Your task to perform on an android device: turn on javascript in the chrome app Image 0: 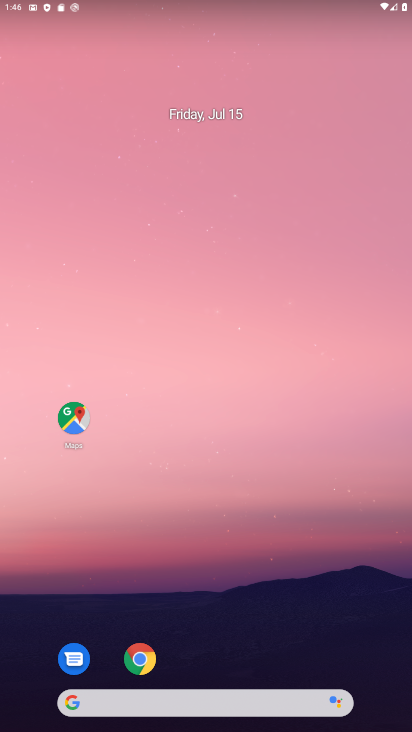
Step 0: drag from (303, 720) to (163, 119)
Your task to perform on an android device: turn on javascript in the chrome app Image 1: 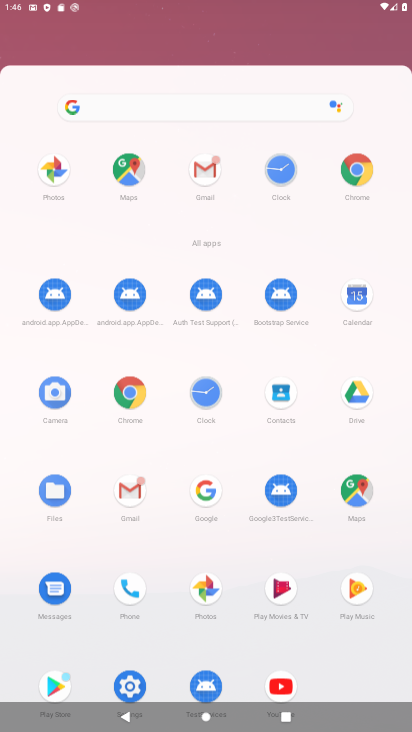
Step 1: drag from (231, 599) to (166, 147)
Your task to perform on an android device: turn on javascript in the chrome app Image 2: 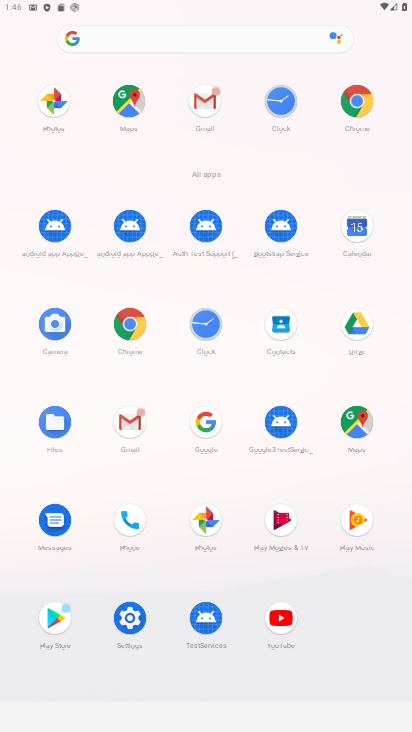
Step 2: click (343, 101)
Your task to perform on an android device: turn on javascript in the chrome app Image 3: 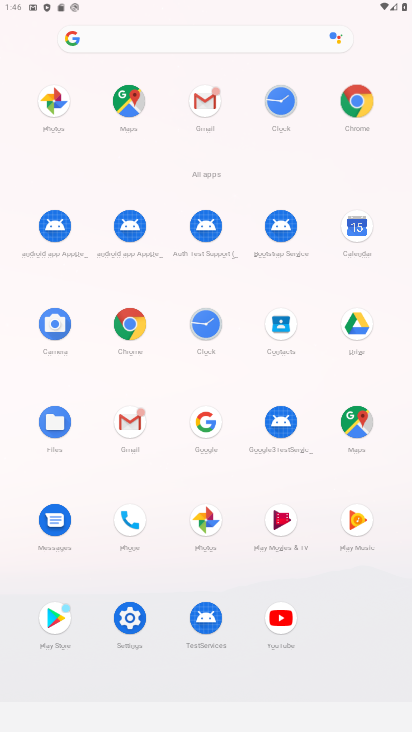
Step 3: click (349, 104)
Your task to perform on an android device: turn on javascript in the chrome app Image 4: 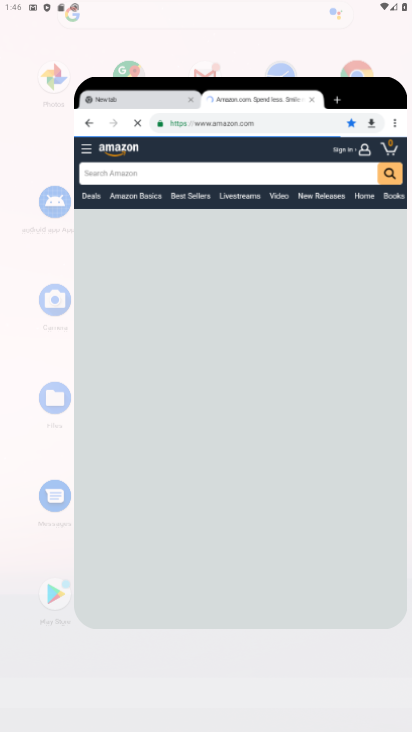
Step 4: click (349, 104)
Your task to perform on an android device: turn on javascript in the chrome app Image 5: 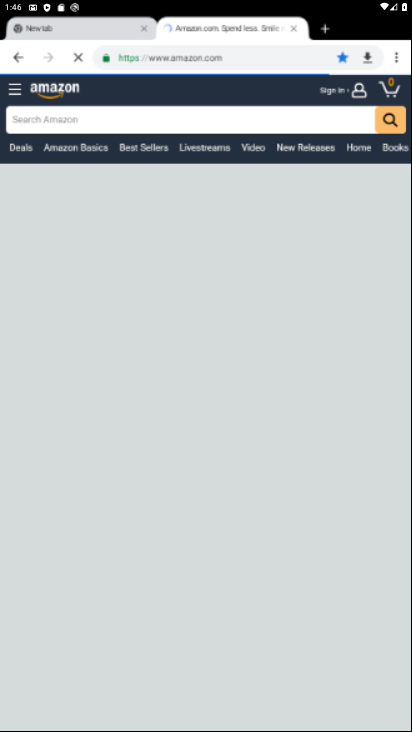
Step 5: click (350, 105)
Your task to perform on an android device: turn on javascript in the chrome app Image 6: 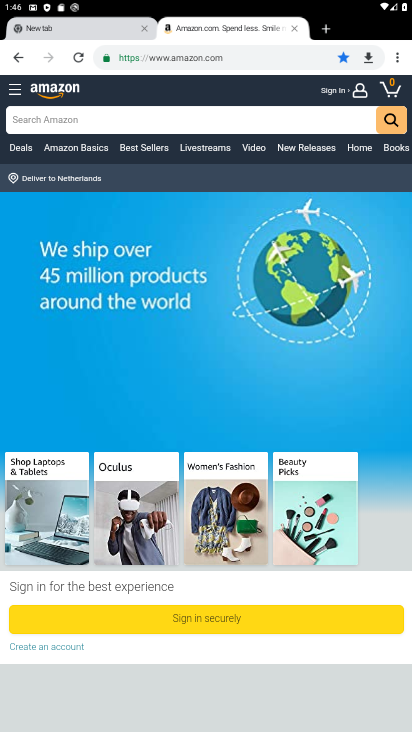
Step 6: drag from (394, 64) to (249, 426)
Your task to perform on an android device: turn on javascript in the chrome app Image 7: 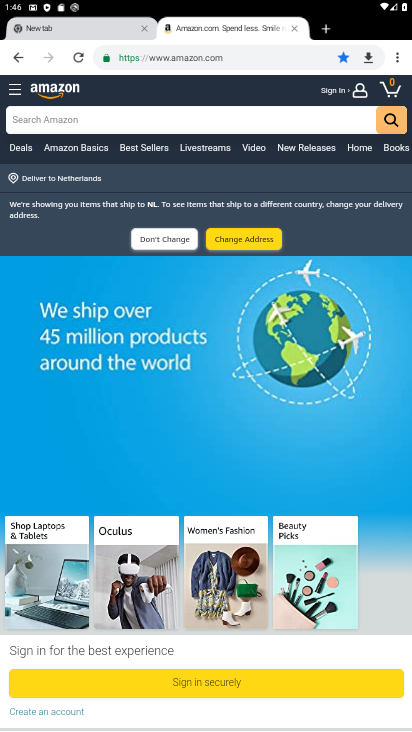
Step 7: drag from (377, 141) to (364, 518)
Your task to perform on an android device: turn on javascript in the chrome app Image 8: 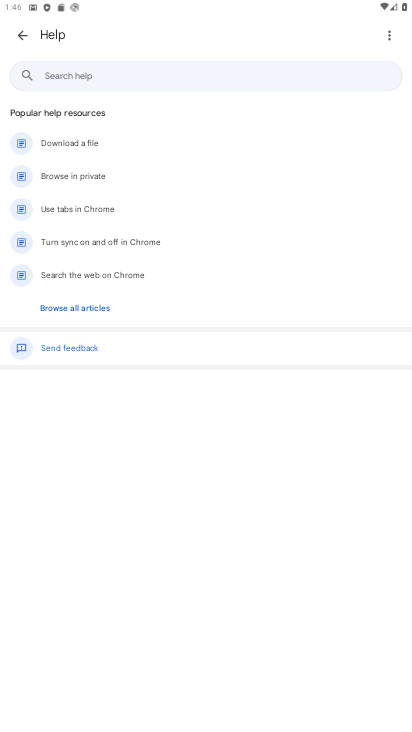
Step 8: click (13, 39)
Your task to perform on an android device: turn on javascript in the chrome app Image 9: 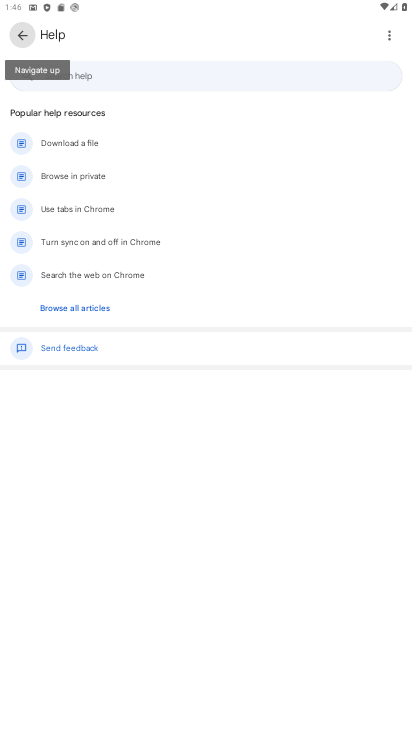
Step 9: click (17, 40)
Your task to perform on an android device: turn on javascript in the chrome app Image 10: 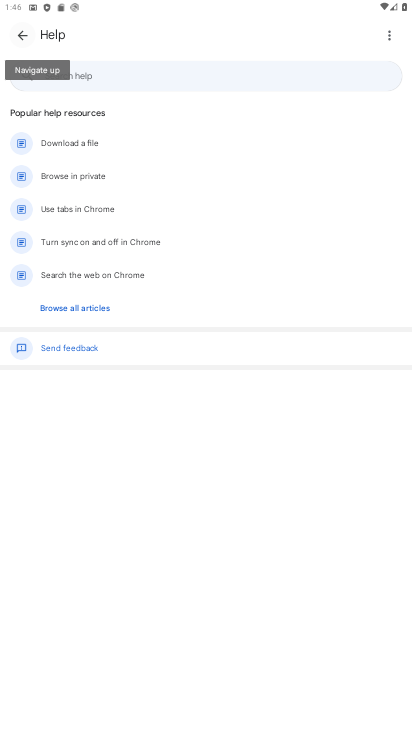
Step 10: click (18, 40)
Your task to perform on an android device: turn on javascript in the chrome app Image 11: 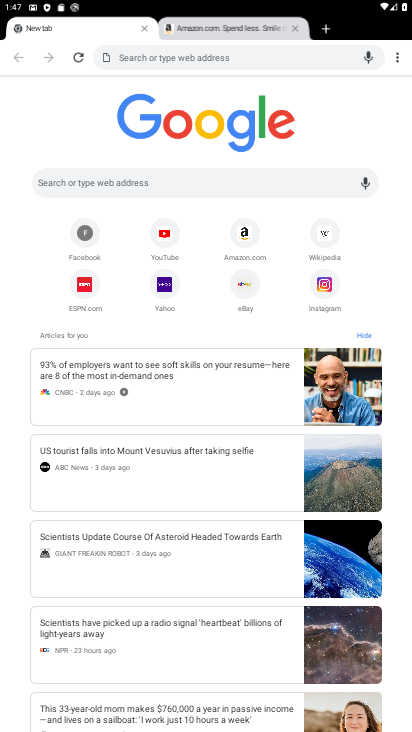
Step 11: drag from (398, 52) to (268, 264)
Your task to perform on an android device: turn on javascript in the chrome app Image 12: 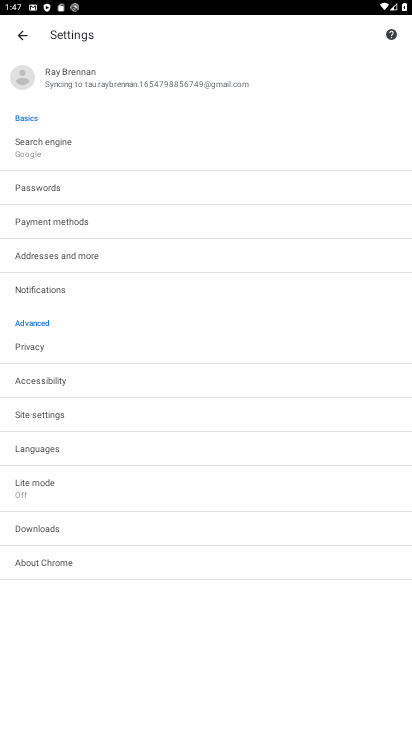
Step 12: click (33, 410)
Your task to perform on an android device: turn on javascript in the chrome app Image 13: 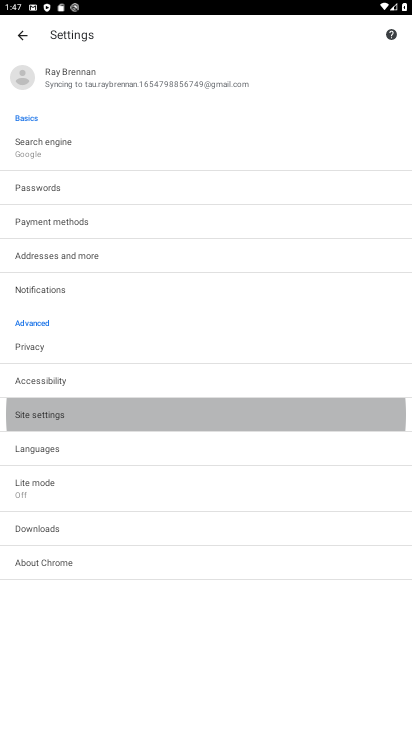
Step 13: click (33, 410)
Your task to perform on an android device: turn on javascript in the chrome app Image 14: 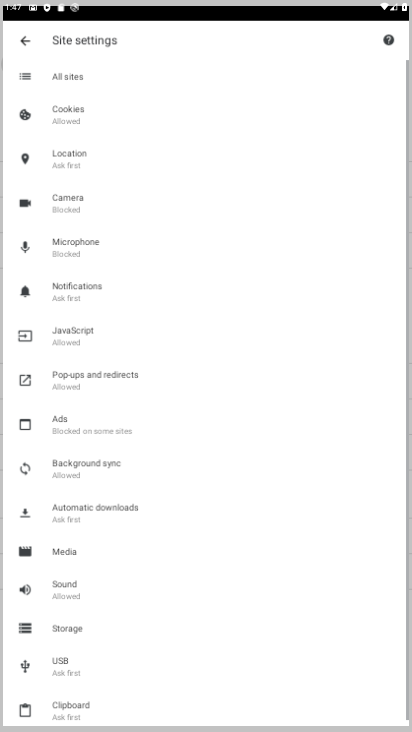
Step 14: click (37, 413)
Your task to perform on an android device: turn on javascript in the chrome app Image 15: 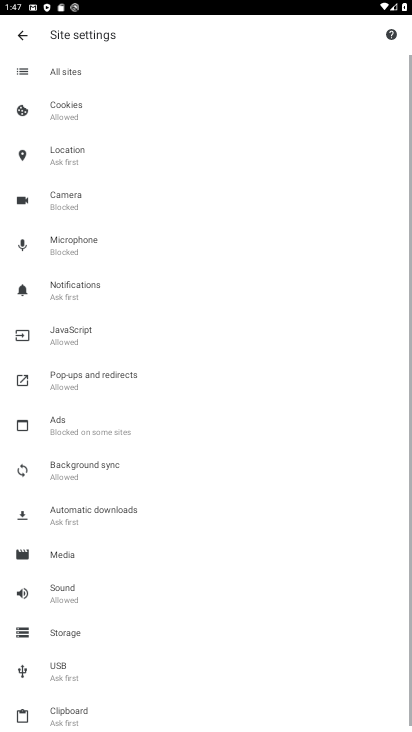
Step 15: click (37, 413)
Your task to perform on an android device: turn on javascript in the chrome app Image 16: 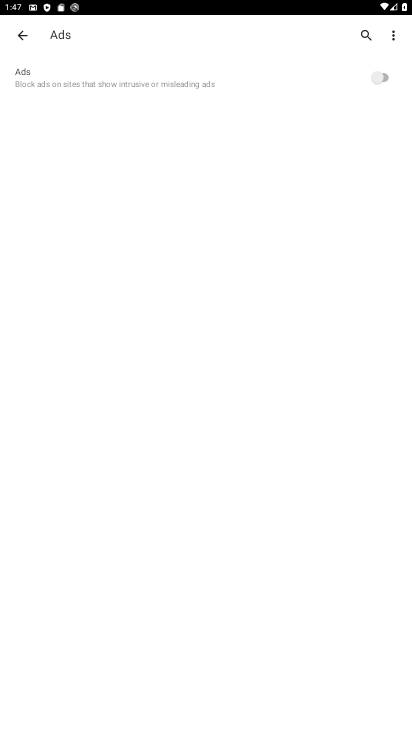
Step 16: click (21, 33)
Your task to perform on an android device: turn on javascript in the chrome app Image 17: 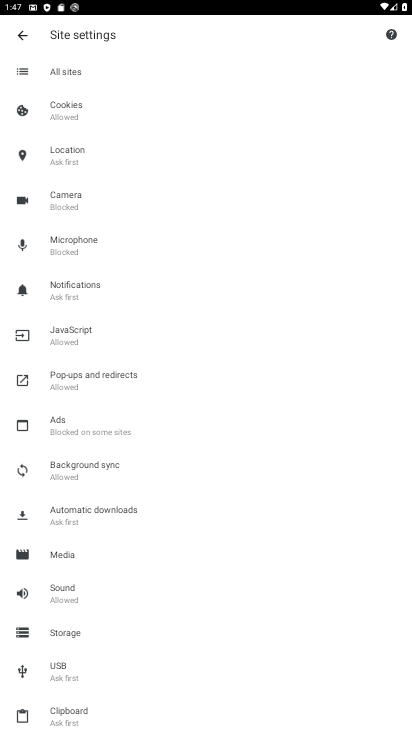
Step 17: click (60, 325)
Your task to perform on an android device: turn on javascript in the chrome app Image 18: 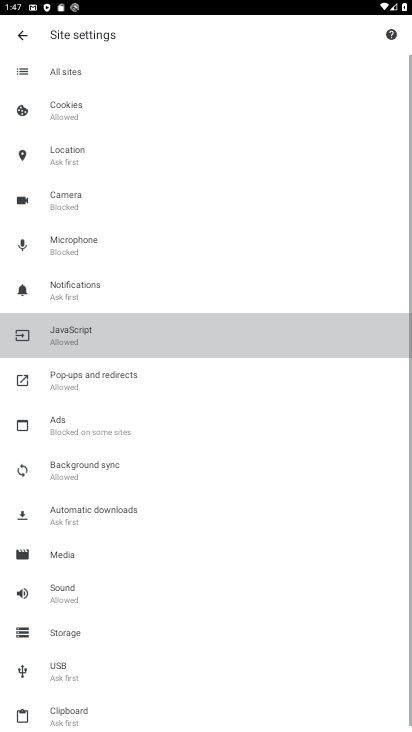
Step 18: click (65, 327)
Your task to perform on an android device: turn on javascript in the chrome app Image 19: 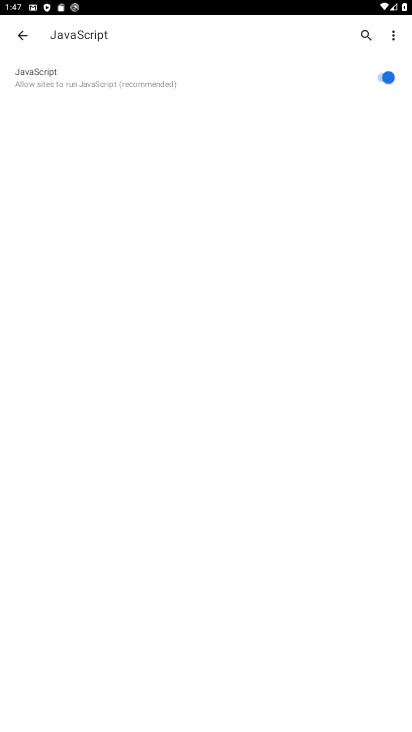
Step 19: task complete